Your task to perform on an android device: Empty the shopping cart on bestbuy. Image 0: 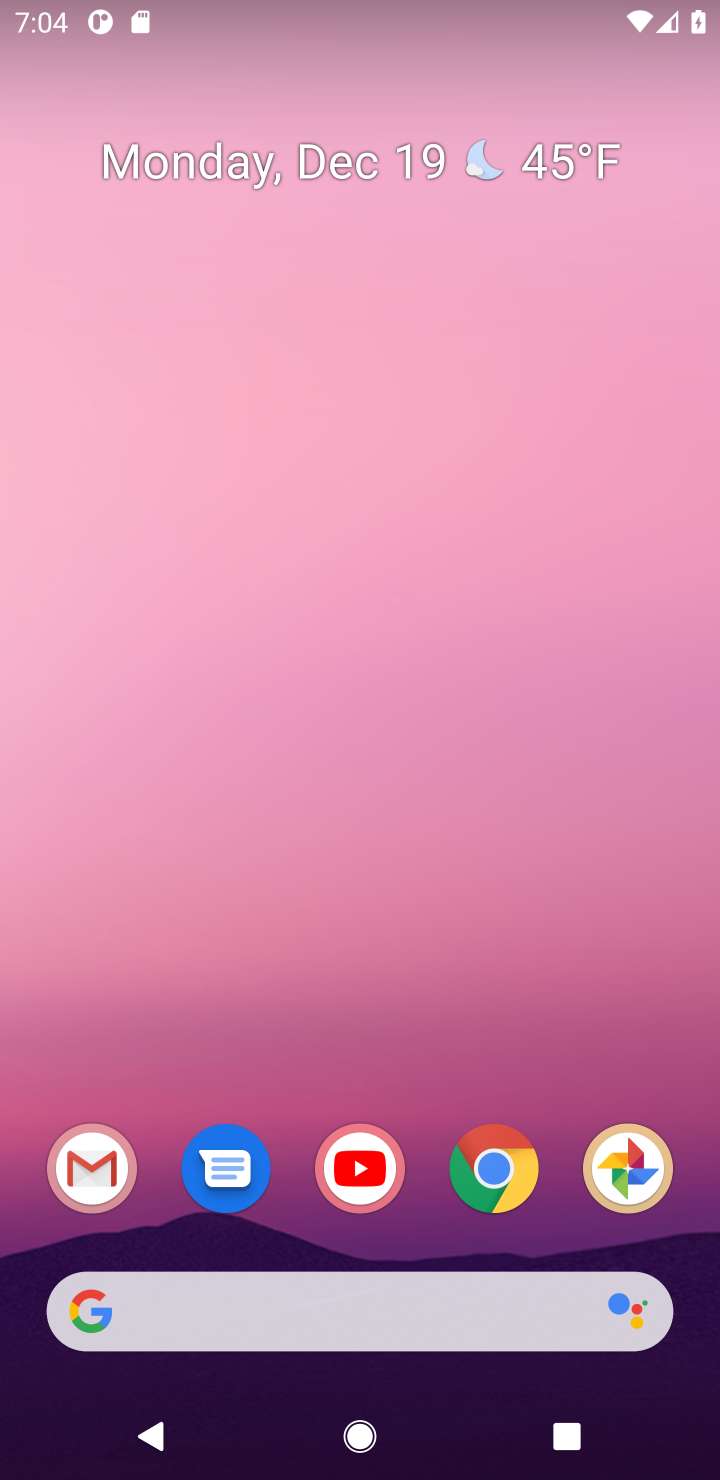
Step 0: click (501, 1177)
Your task to perform on an android device: Empty the shopping cart on bestbuy. Image 1: 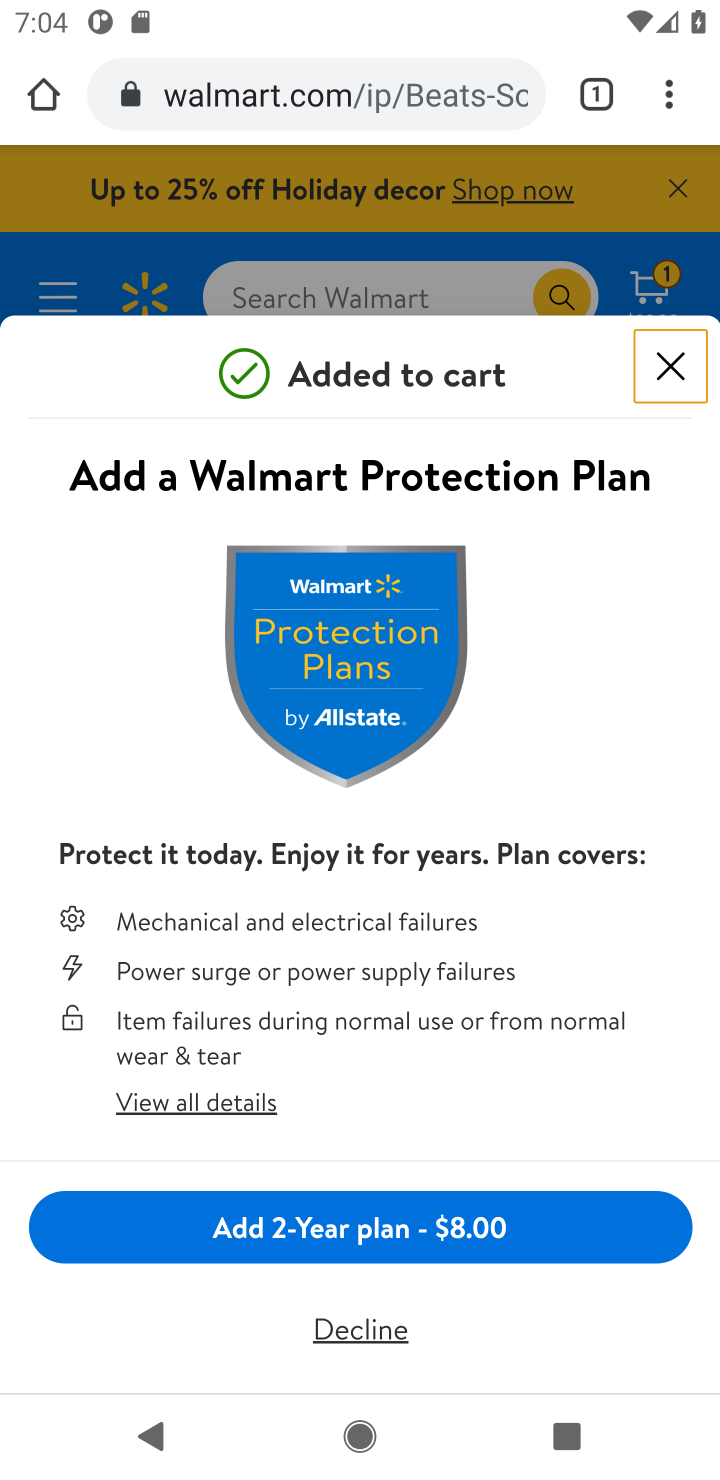
Step 1: click (284, 94)
Your task to perform on an android device: Empty the shopping cart on bestbuy. Image 2: 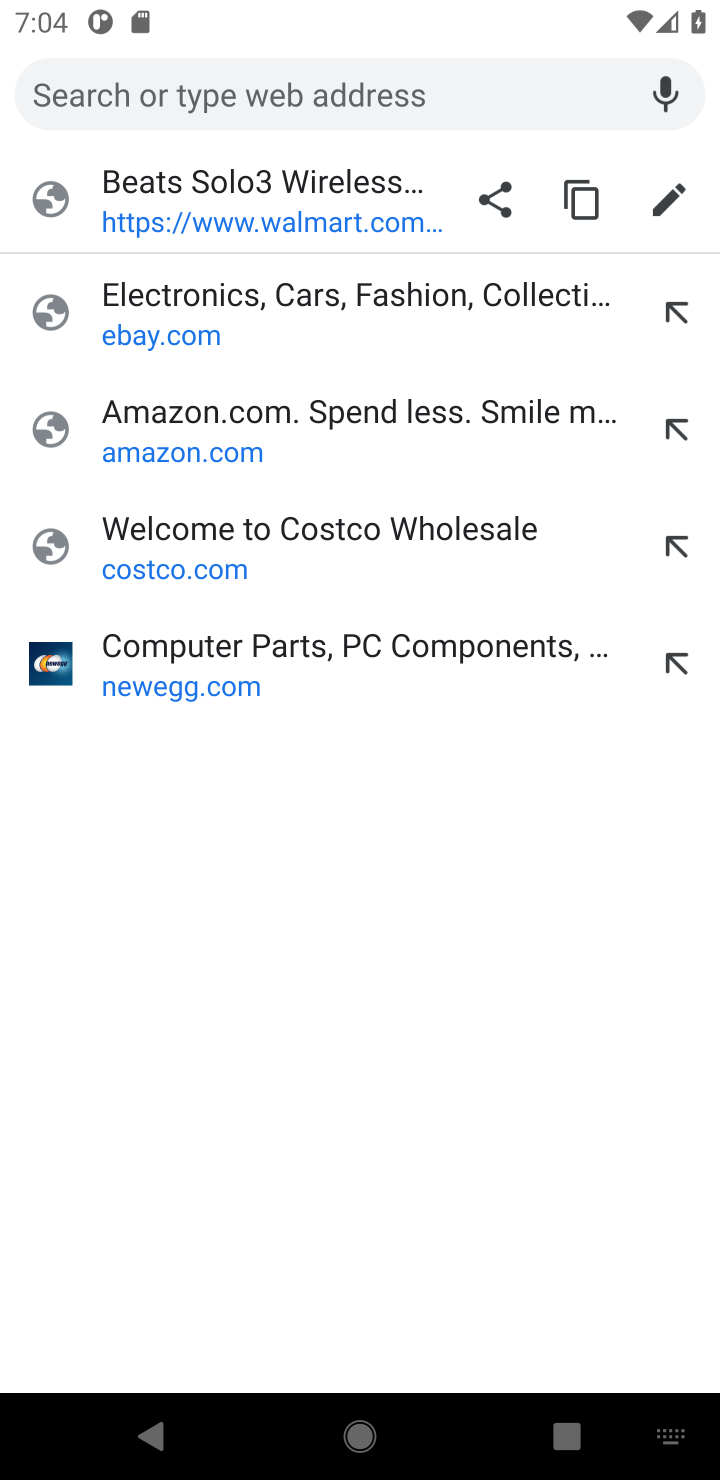
Step 2: type "bestbuy.com"
Your task to perform on an android device: Empty the shopping cart on bestbuy. Image 3: 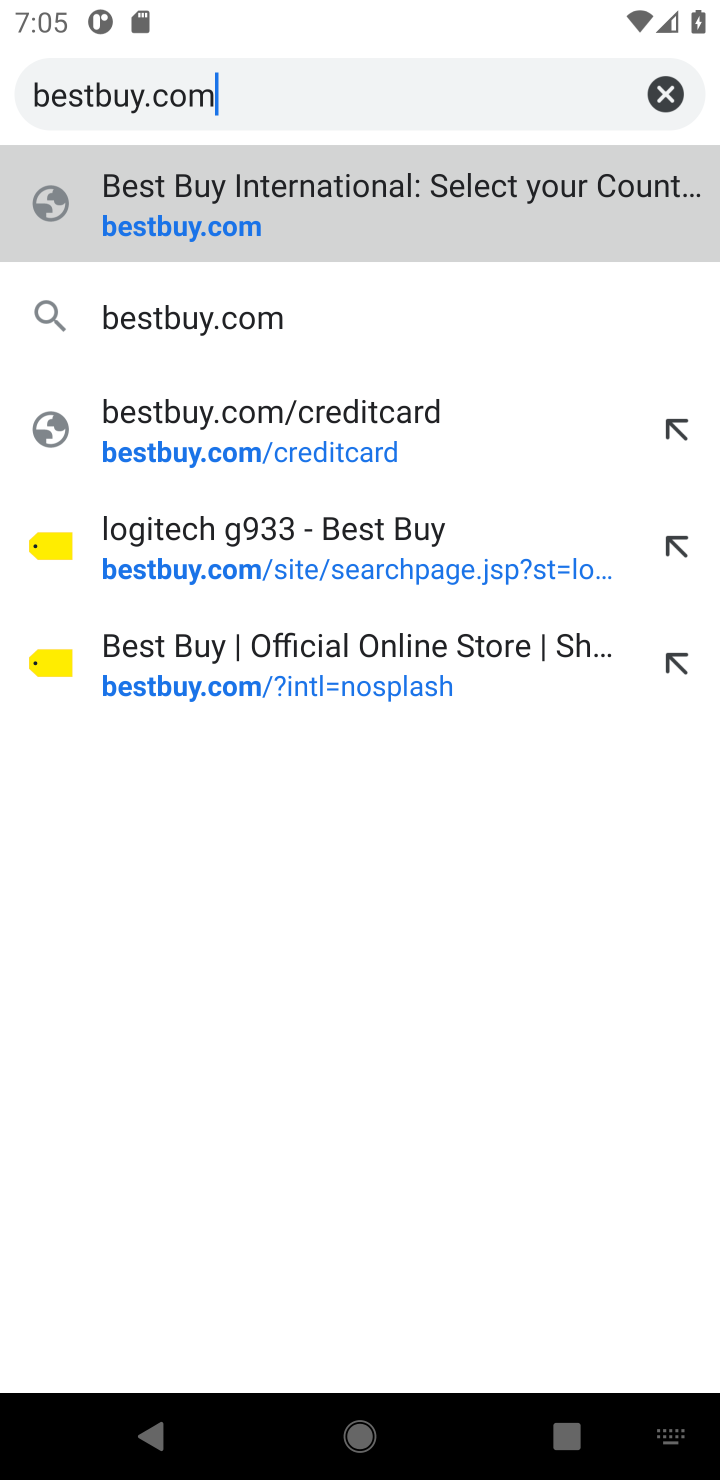
Step 3: click (106, 236)
Your task to perform on an android device: Empty the shopping cart on bestbuy. Image 4: 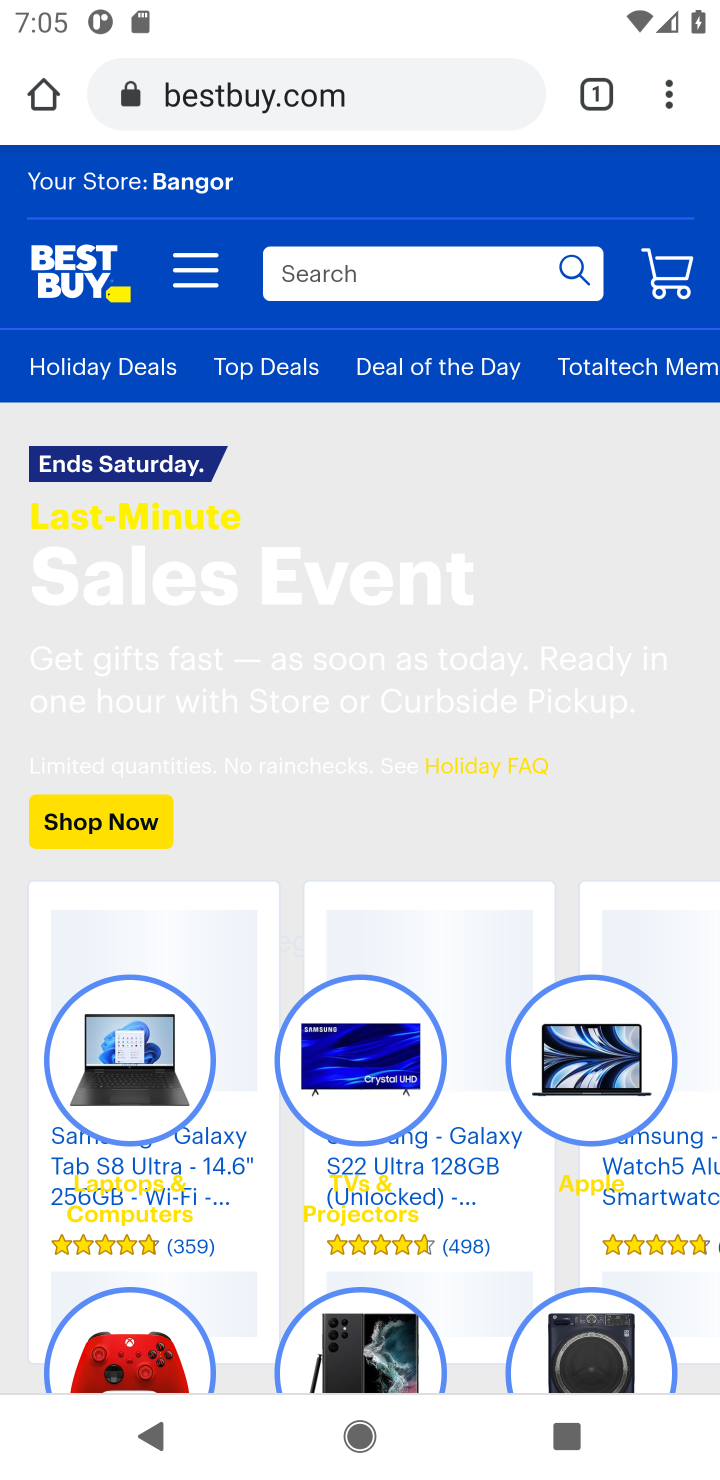
Step 4: click (689, 287)
Your task to perform on an android device: Empty the shopping cart on bestbuy. Image 5: 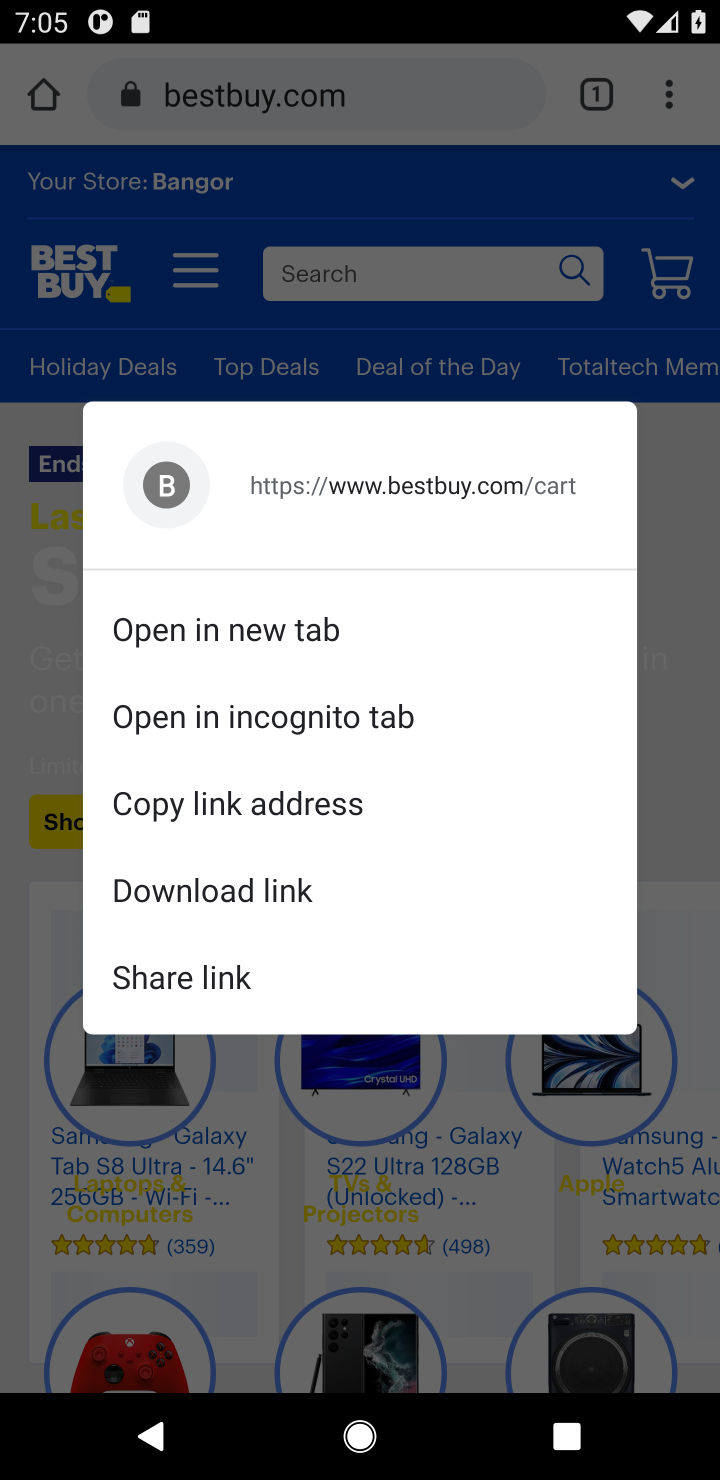
Step 5: click (689, 287)
Your task to perform on an android device: Empty the shopping cart on bestbuy. Image 6: 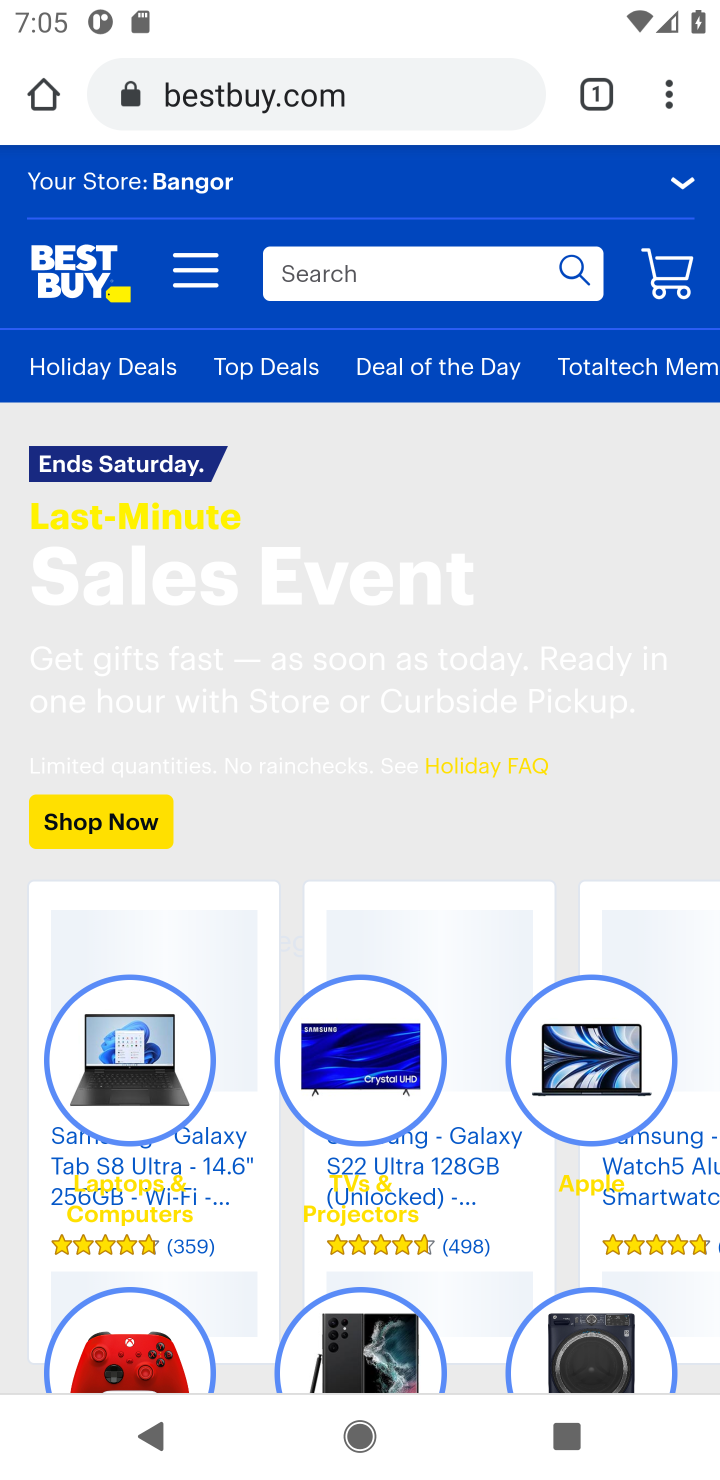
Step 6: click (671, 269)
Your task to perform on an android device: Empty the shopping cart on bestbuy. Image 7: 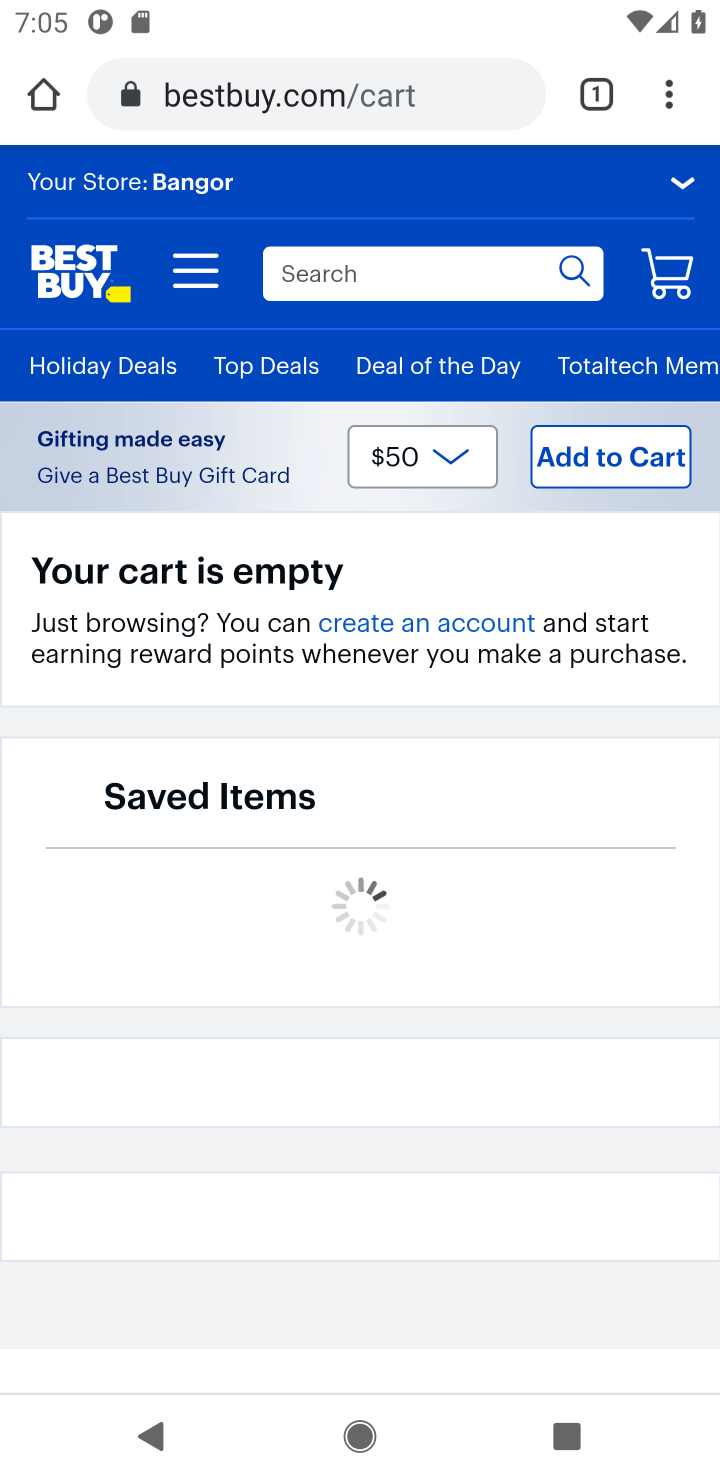
Step 7: task complete